Your task to perform on an android device: change keyboard looks Image 0: 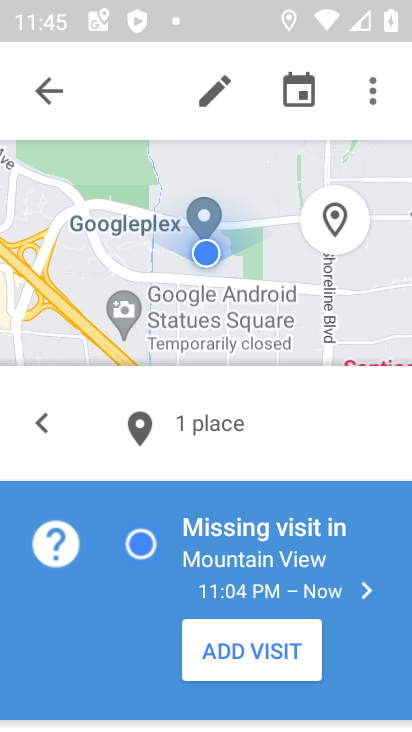
Step 0: press home button
Your task to perform on an android device: change keyboard looks Image 1: 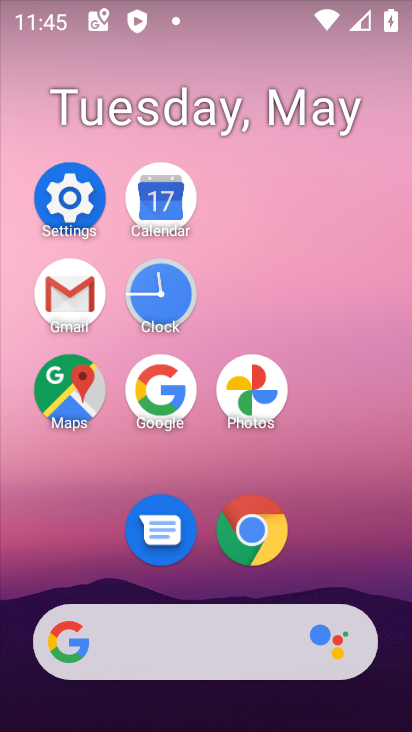
Step 1: click (91, 209)
Your task to perform on an android device: change keyboard looks Image 2: 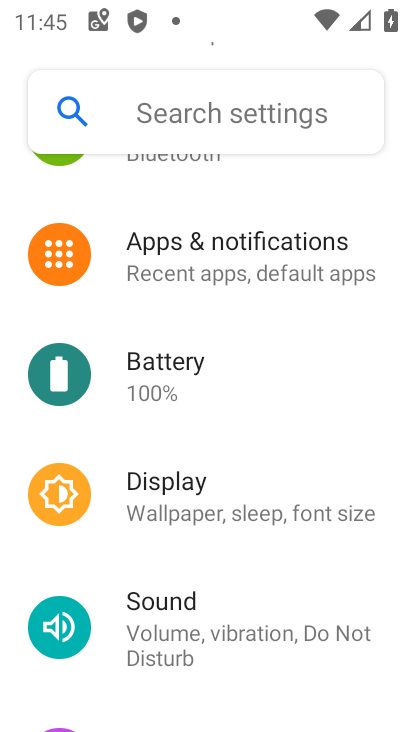
Step 2: drag from (324, 625) to (259, 148)
Your task to perform on an android device: change keyboard looks Image 3: 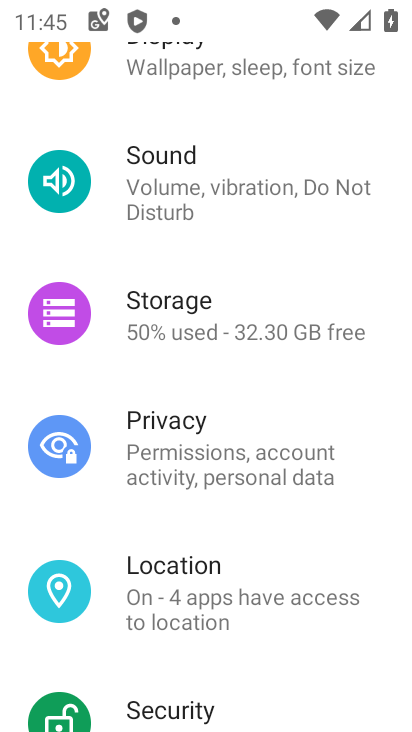
Step 3: drag from (312, 673) to (342, 172)
Your task to perform on an android device: change keyboard looks Image 4: 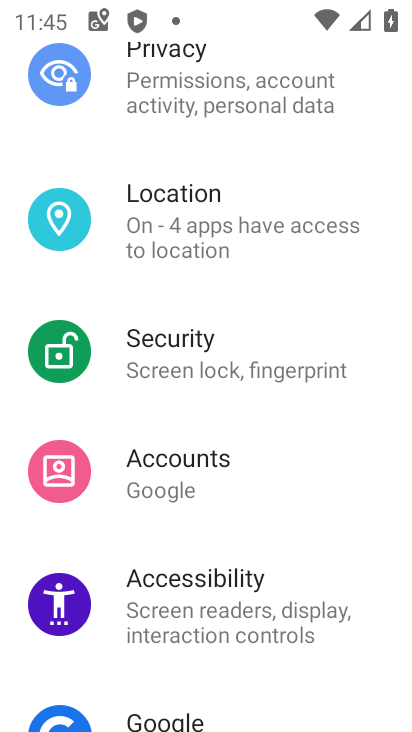
Step 4: drag from (313, 651) to (302, 165)
Your task to perform on an android device: change keyboard looks Image 5: 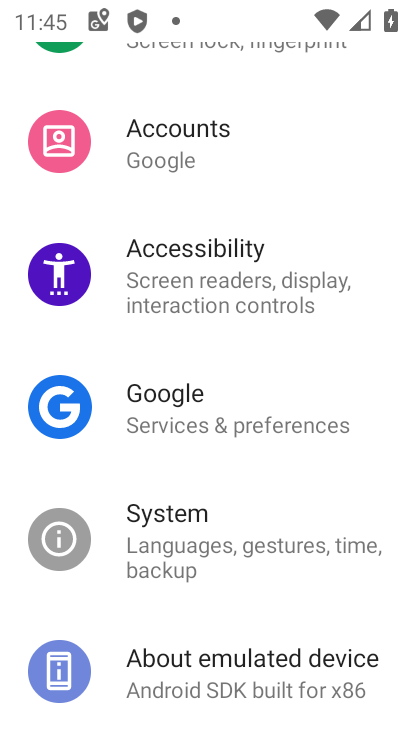
Step 5: drag from (252, 598) to (275, 212)
Your task to perform on an android device: change keyboard looks Image 6: 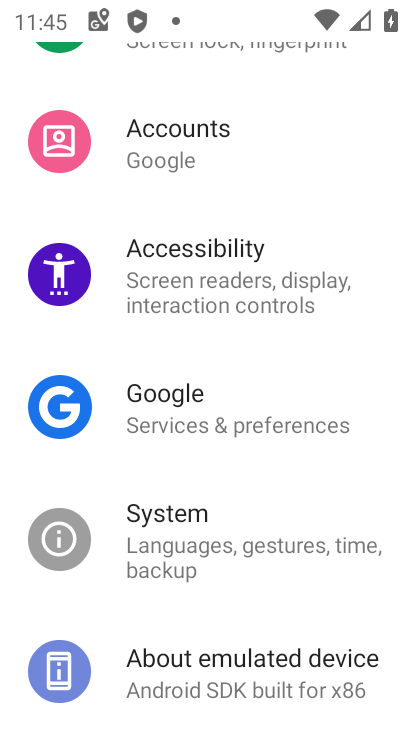
Step 6: click (266, 554)
Your task to perform on an android device: change keyboard looks Image 7: 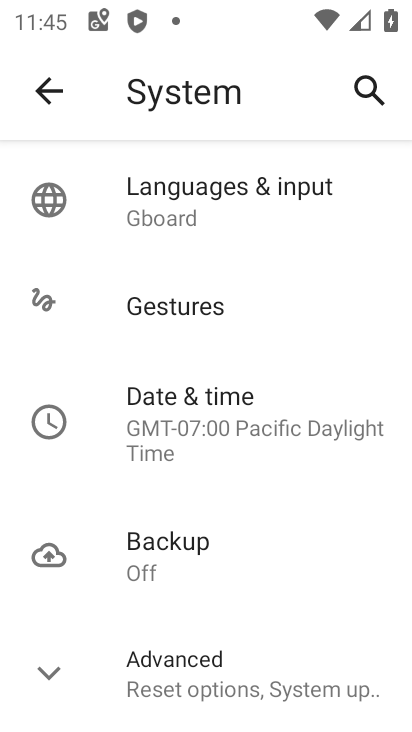
Step 7: drag from (294, 536) to (288, 237)
Your task to perform on an android device: change keyboard looks Image 8: 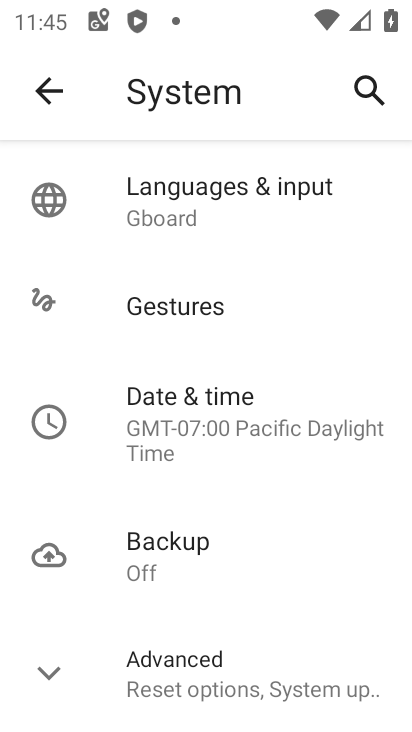
Step 8: drag from (323, 564) to (323, 191)
Your task to perform on an android device: change keyboard looks Image 9: 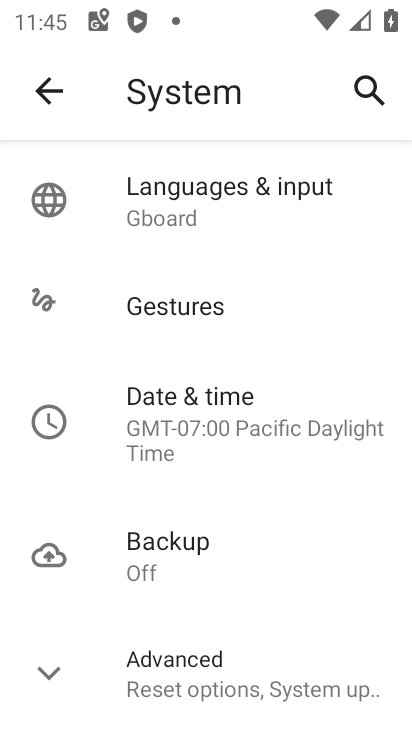
Step 9: click (269, 211)
Your task to perform on an android device: change keyboard looks Image 10: 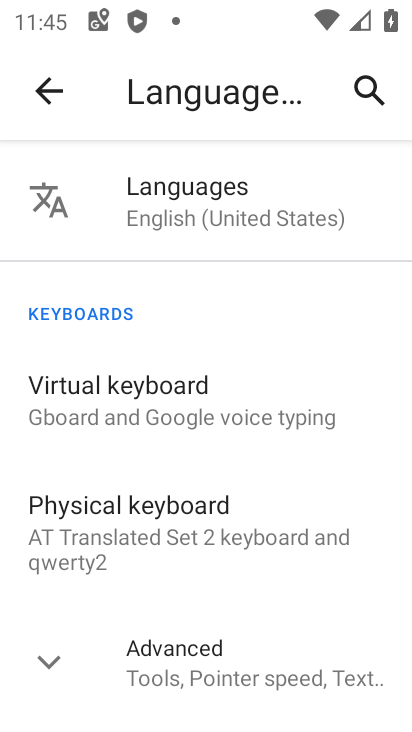
Step 10: click (194, 379)
Your task to perform on an android device: change keyboard looks Image 11: 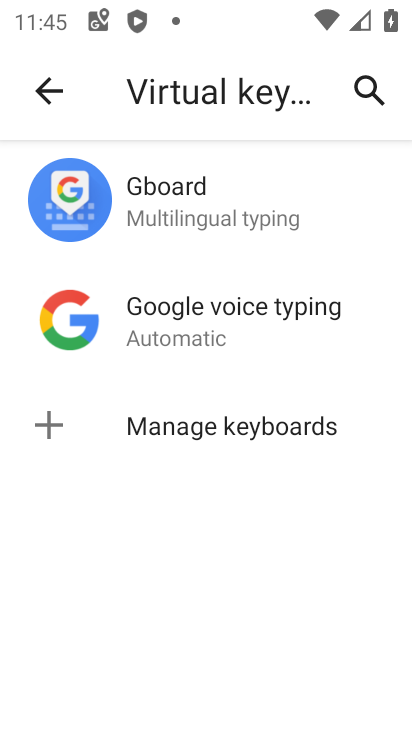
Step 11: click (226, 209)
Your task to perform on an android device: change keyboard looks Image 12: 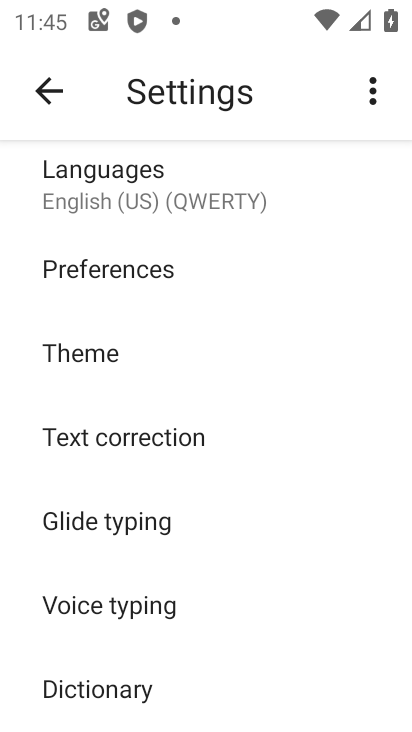
Step 12: click (125, 350)
Your task to perform on an android device: change keyboard looks Image 13: 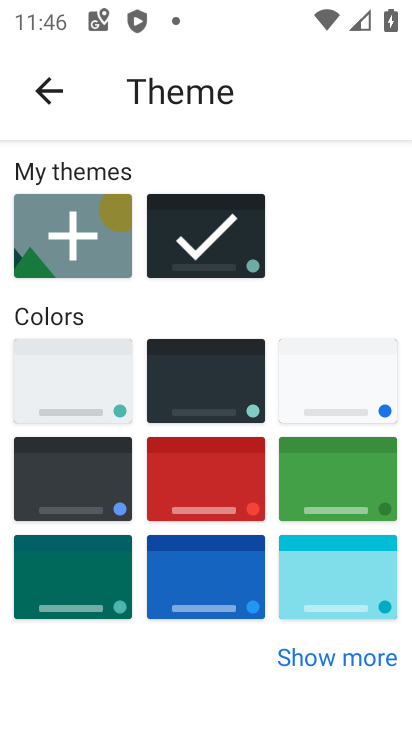
Step 13: click (217, 383)
Your task to perform on an android device: change keyboard looks Image 14: 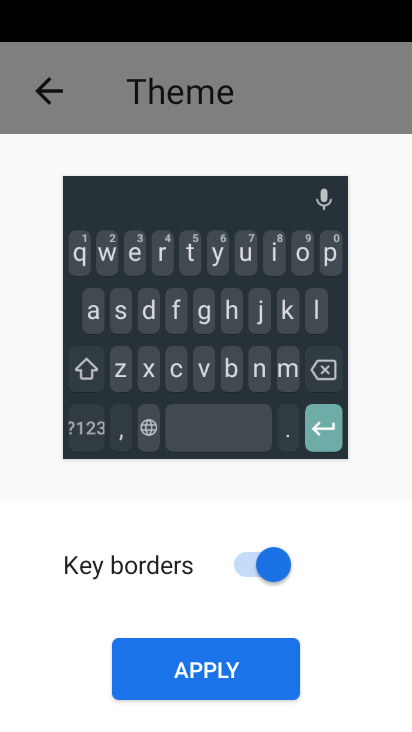
Step 14: click (253, 684)
Your task to perform on an android device: change keyboard looks Image 15: 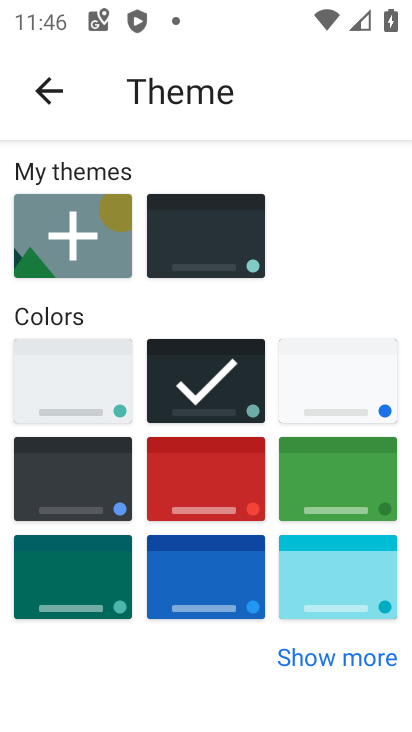
Step 15: task complete